Your task to perform on an android device: What's the news this afternoon? Image 0: 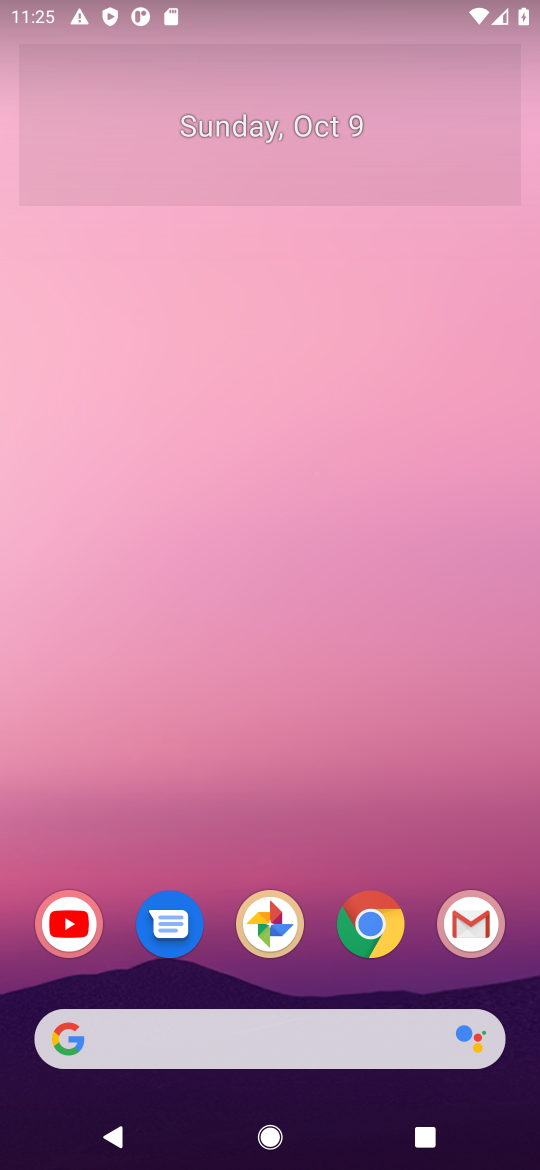
Step 0: drag from (389, 887) to (531, 515)
Your task to perform on an android device: What's the news this afternoon? Image 1: 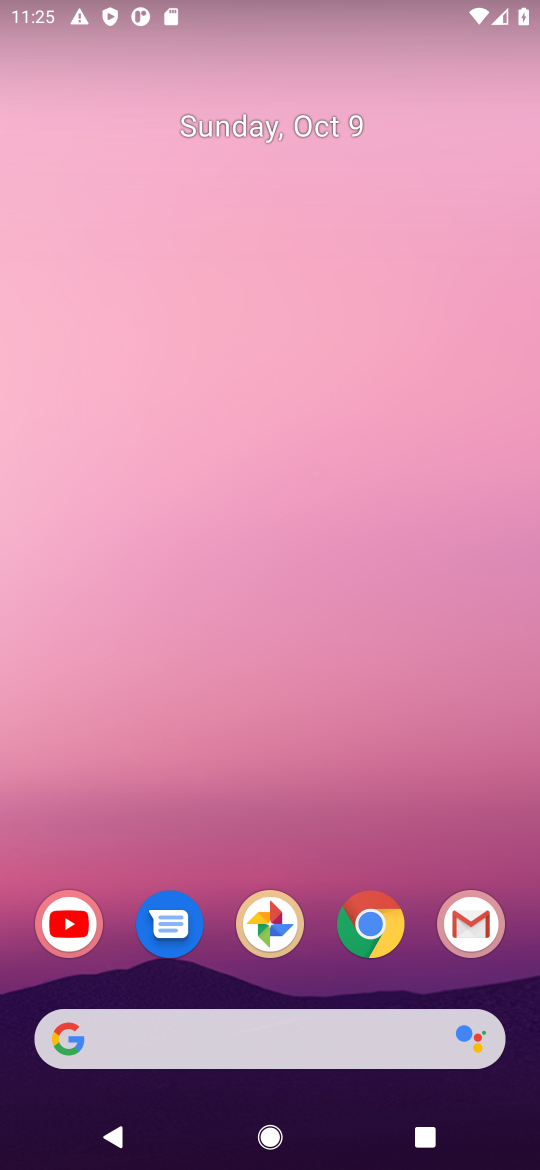
Step 1: drag from (315, 906) to (131, 324)
Your task to perform on an android device: What's the news this afternoon? Image 2: 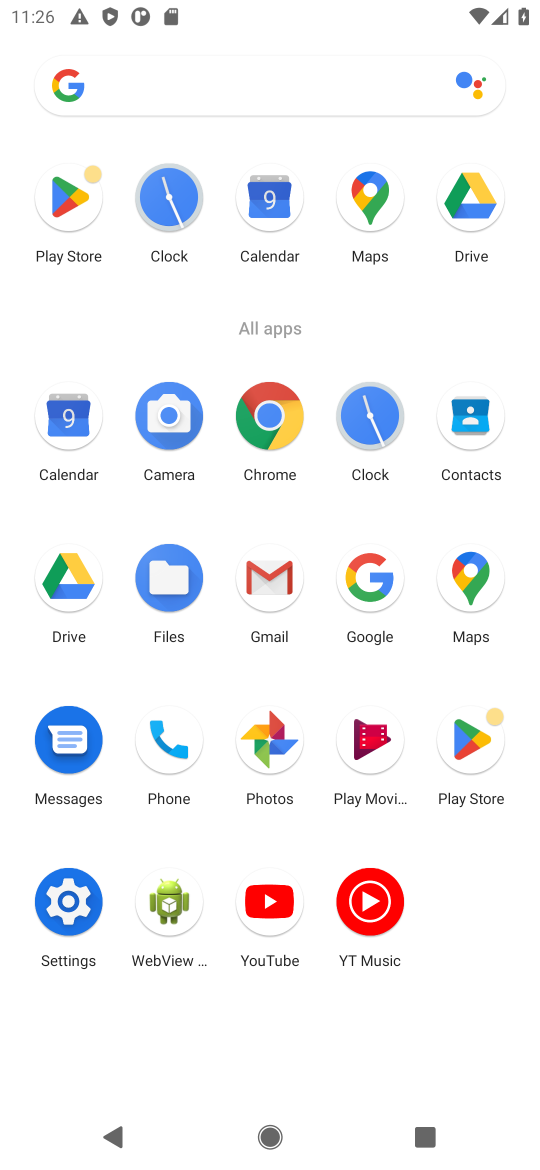
Step 2: click (251, 427)
Your task to perform on an android device: What's the news this afternoon? Image 3: 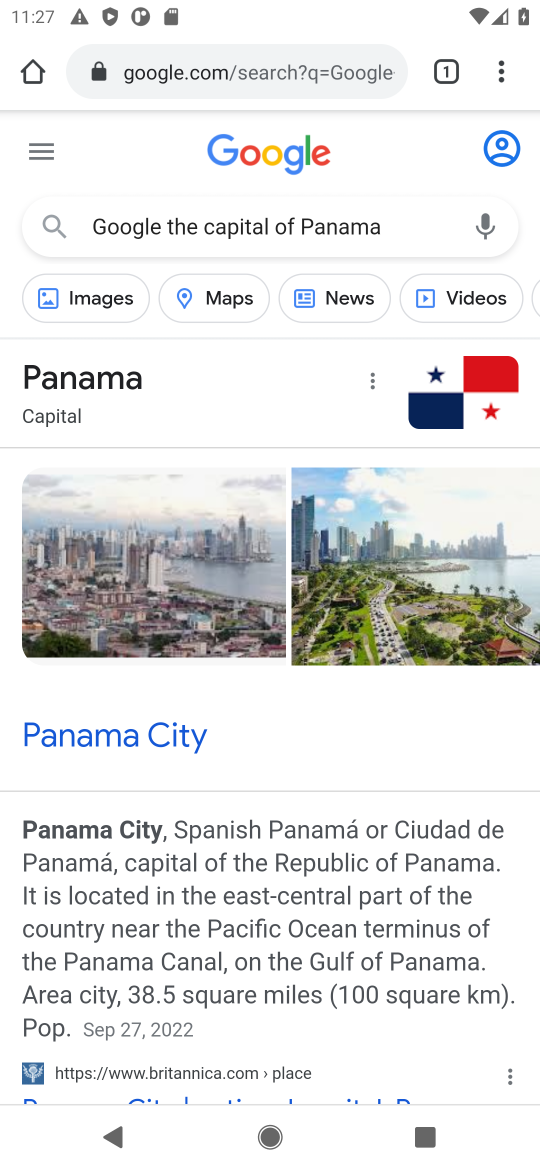
Step 3: click (287, 74)
Your task to perform on an android device: What's the news this afternoon? Image 4: 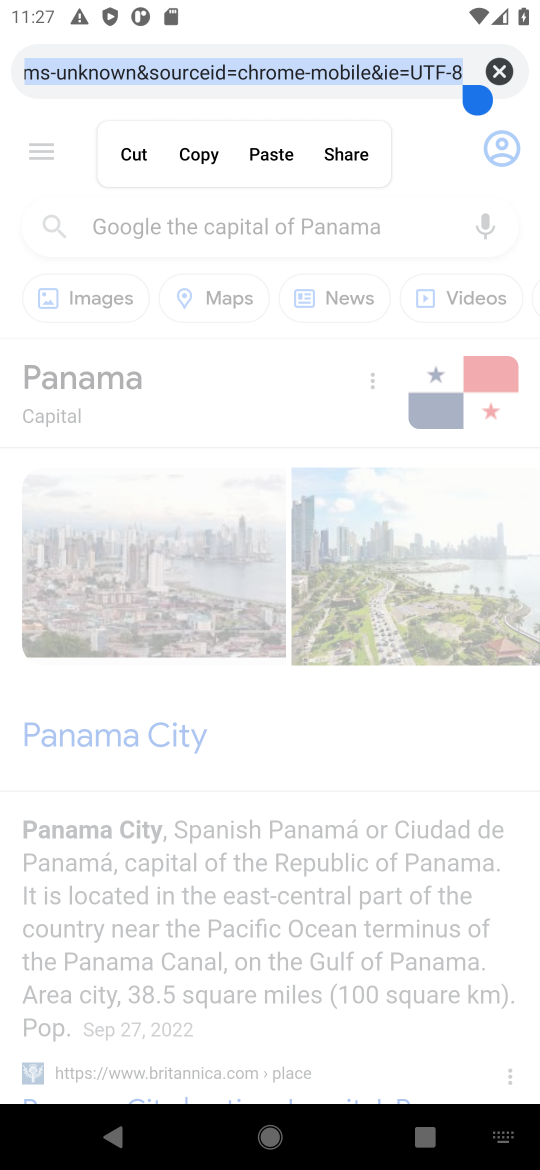
Step 4: press enter
Your task to perform on an android device: What's the news this afternoon? Image 5: 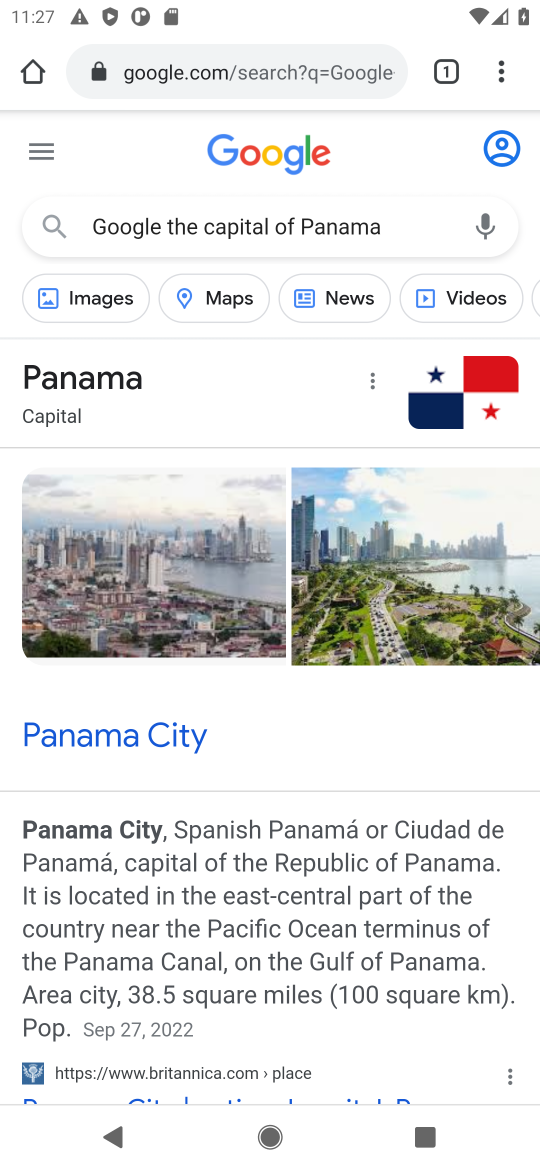
Step 5: click (290, 76)
Your task to perform on an android device: What's the news this afternoon? Image 6: 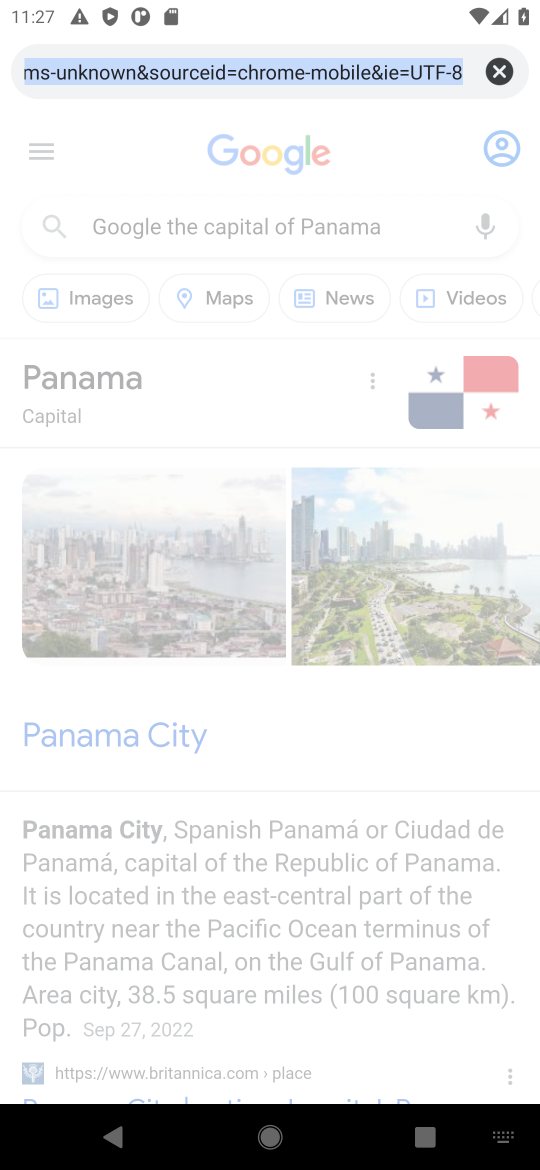
Step 6: press back button
Your task to perform on an android device: What's the news this afternoon? Image 7: 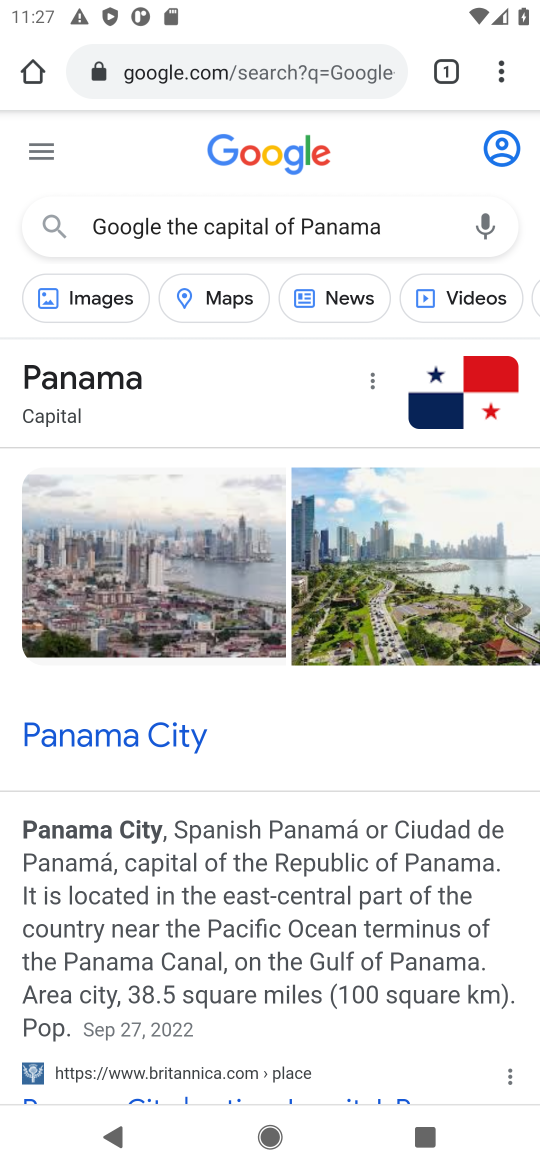
Step 7: click (369, 73)
Your task to perform on an android device: What's the news this afternoon? Image 8: 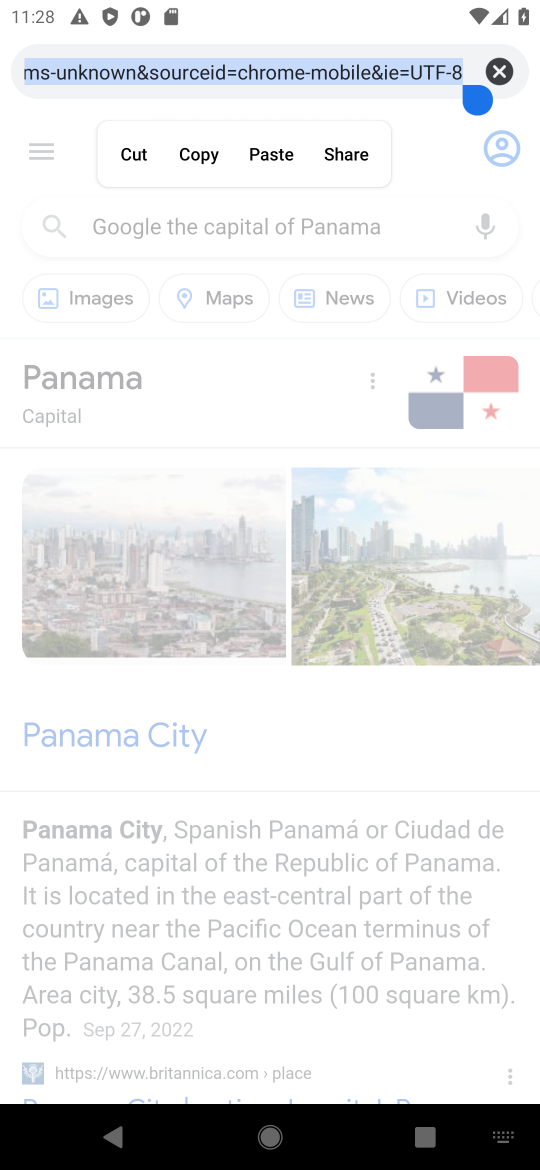
Step 8: click (498, 69)
Your task to perform on an android device: What's the news this afternoon? Image 9: 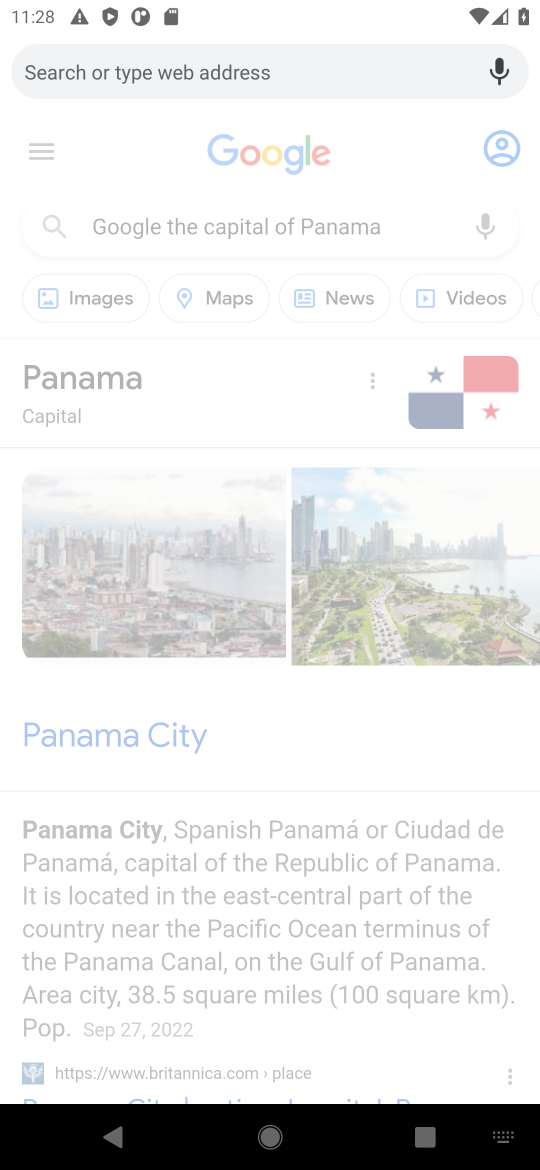
Step 9: type "What's the news this afternoon?"
Your task to perform on an android device: What's the news this afternoon? Image 10: 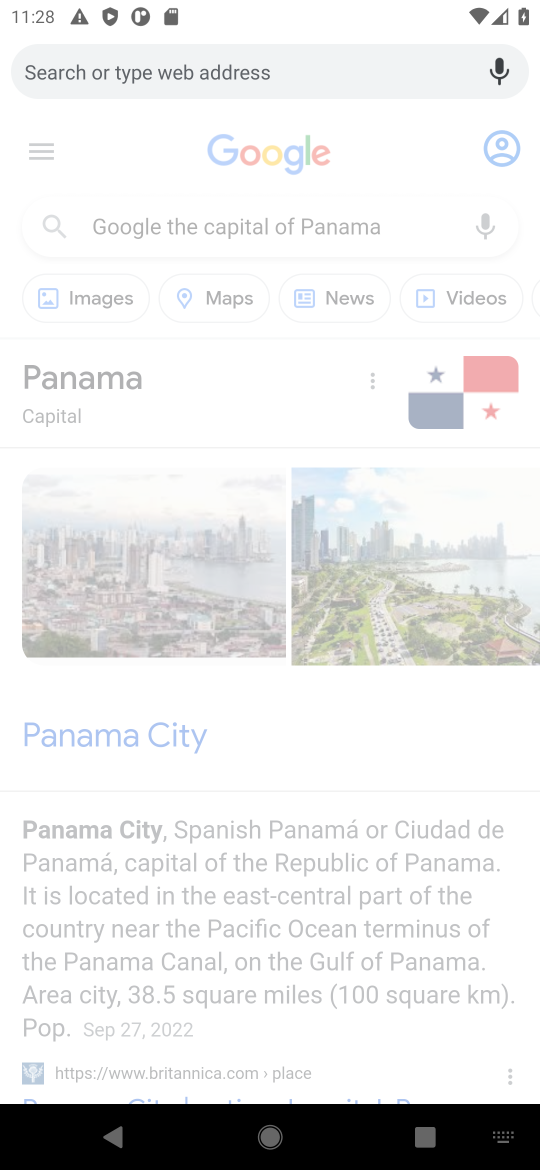
Step 10: click (294, 71)
Your task to perform on an android device: What's the news this afternoon? Image 11: 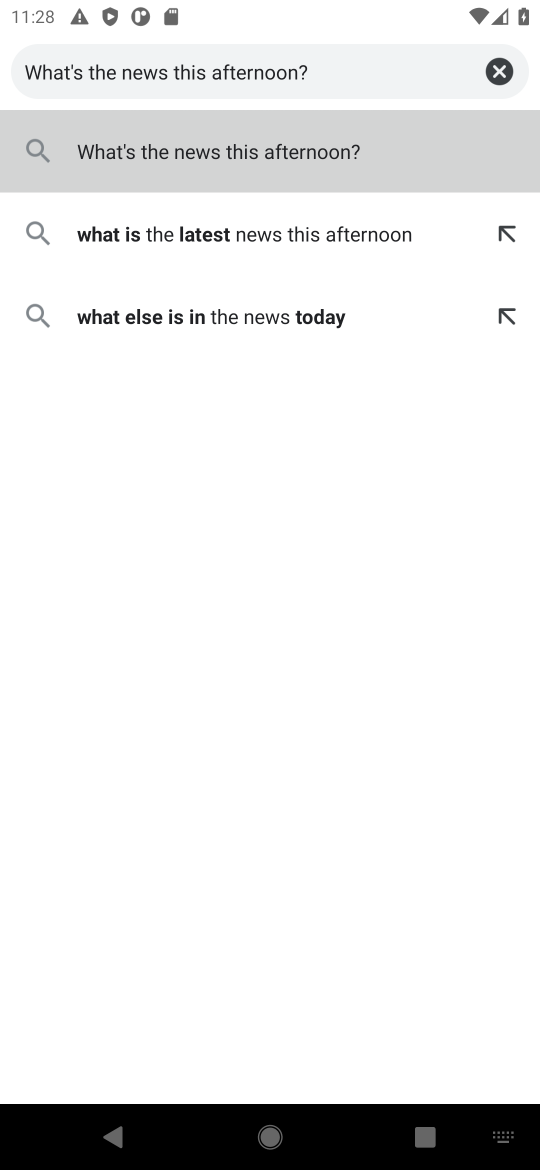
Step 11: press enter
Your task to perform on an android device: What's the news this afternoon? Image 12: 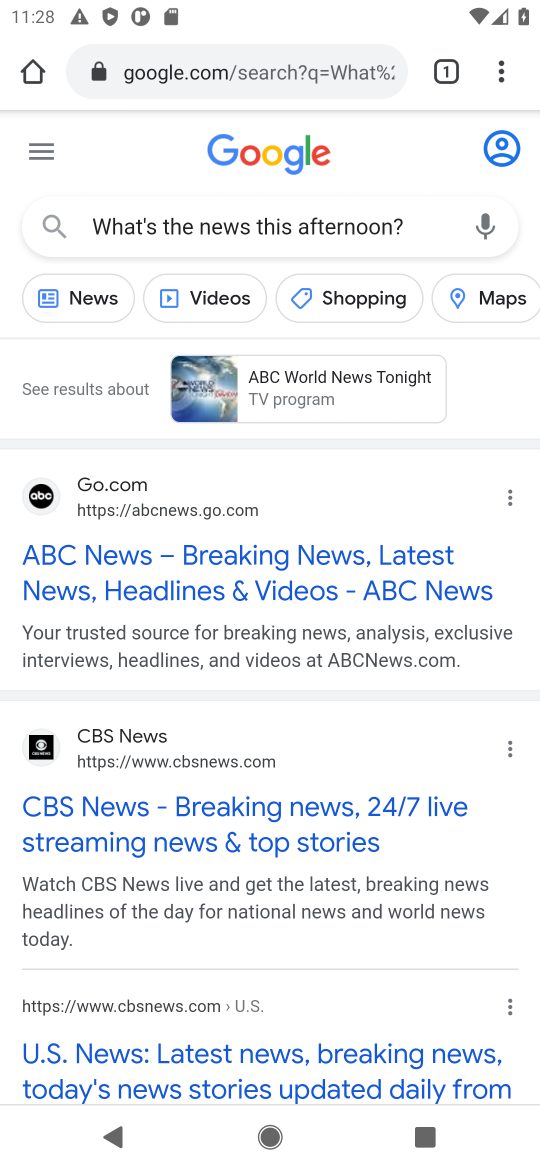
Step 12: type "What's the news this afternoon?"
Your task to perform on an android device: What's the news this afternoon? Image 13: 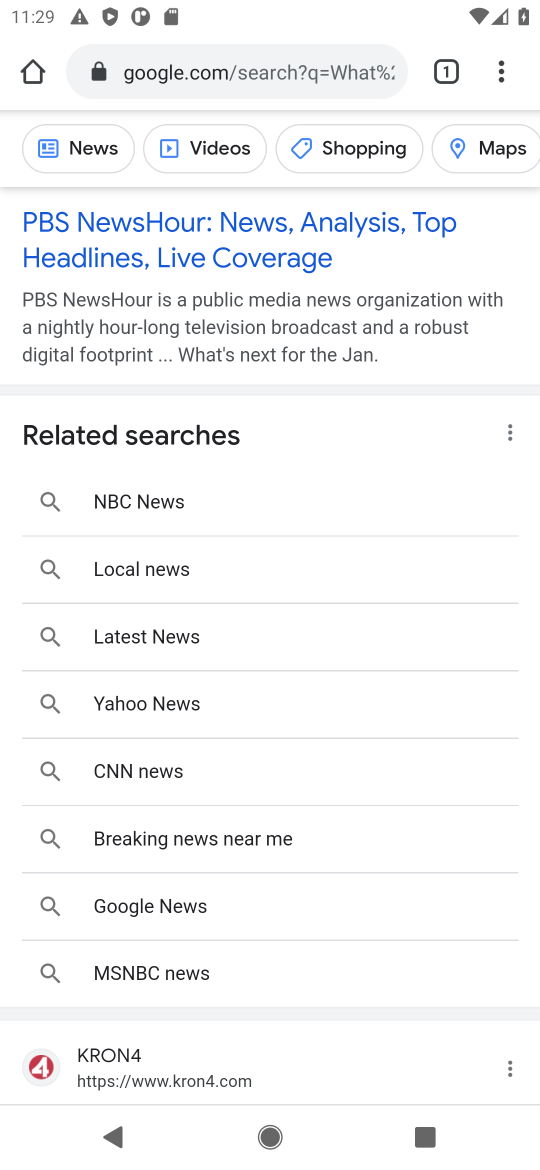
Step 13: task complete